Your task to perform on an android device: turn off location Image 0: 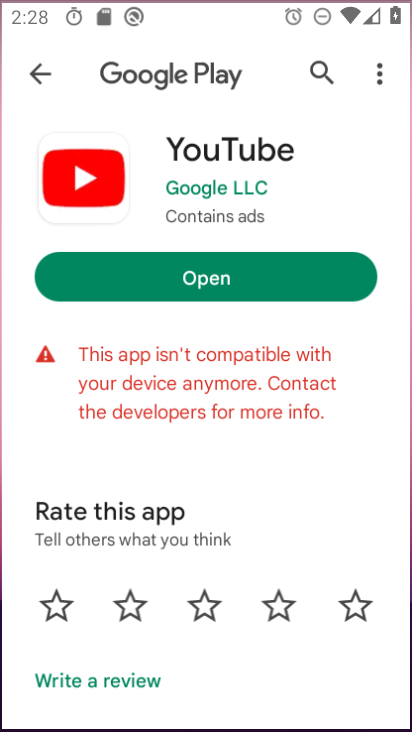
Step 0: drag from (353, 583) to (364, 175)
Your task to perform on an android device: turn off location Image 1: 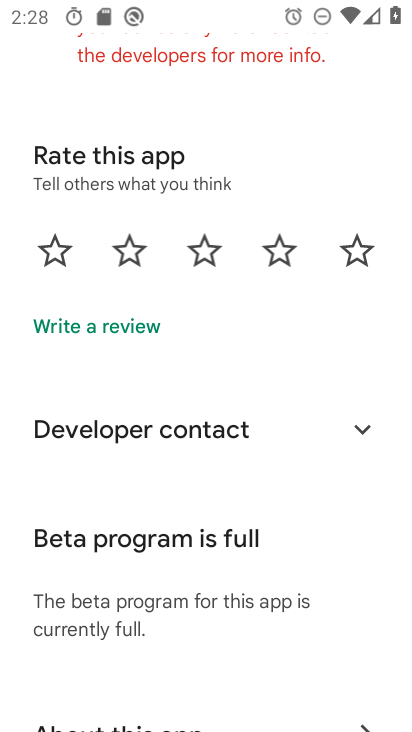
Step 1: press home button
Your task to perform on an android device: turn off location Image 2: 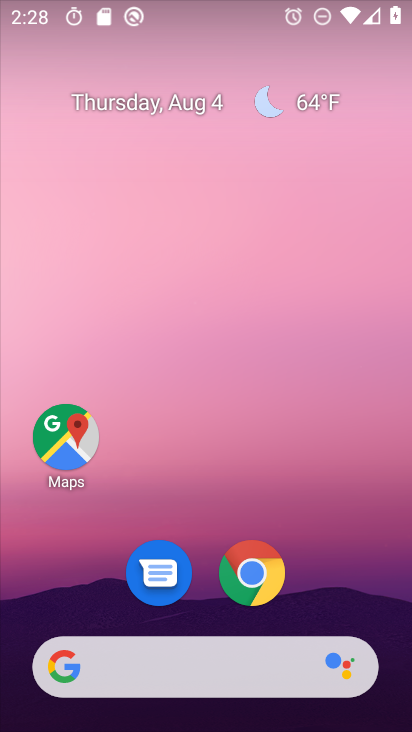
Step 2: drag from (345, 593) to (329, 160)
Your task to perform on an android device: turn off location Image 3: 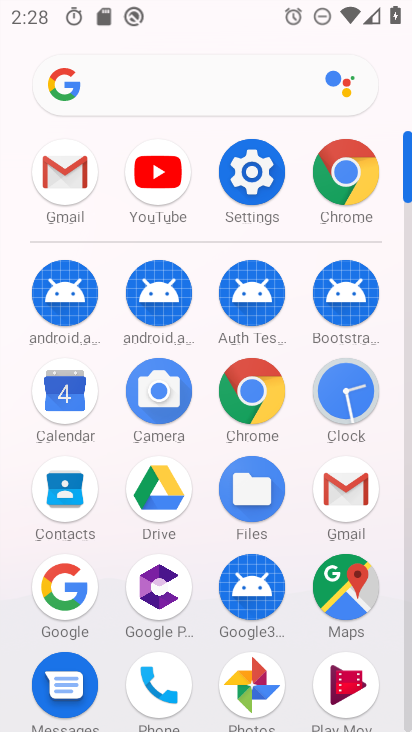
Step 3: click (253, 158)
Your task to perform on an android device: turn off location Image 4: 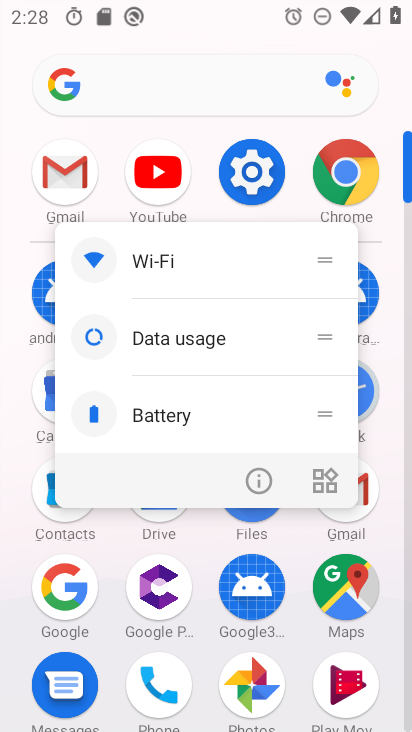
Step 4: click (253, 161)
Your task to perform on an android device: turn off location Image 5: 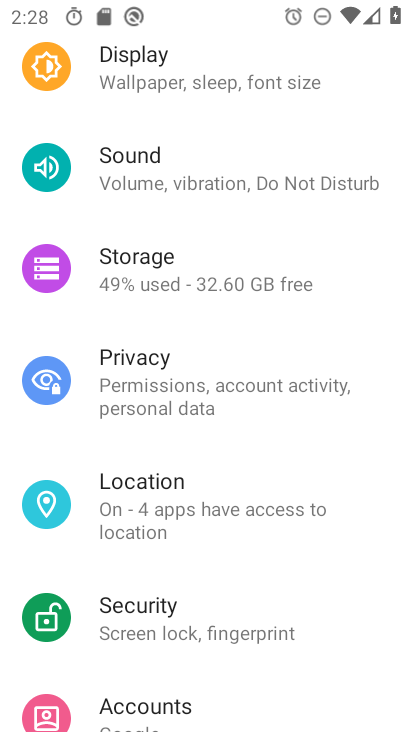
Step 5: click (148, 480)
Your task to perform on an android device: turn off location Image 6: 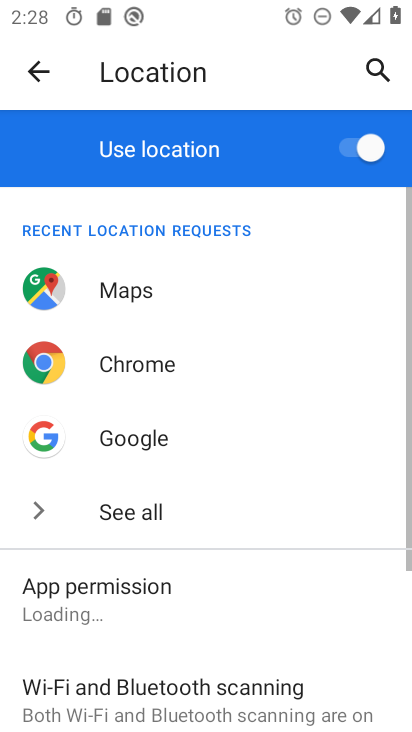
Step 6: click (318, 144)
Your task to perform on an android device: turn off location Image 7: 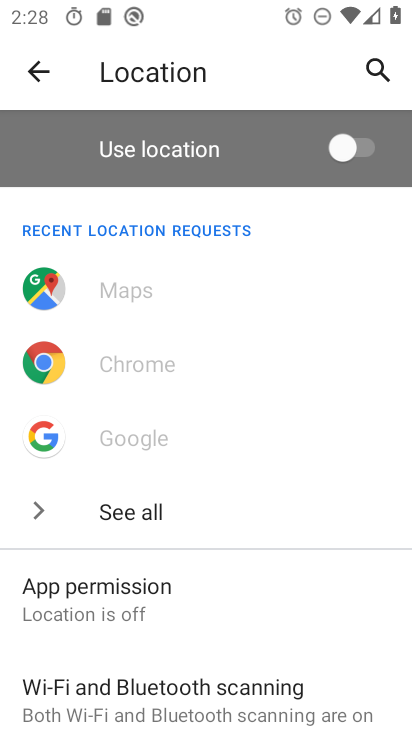
Step 7: task complete